Your task to perform on an android device: When is my next appointment? Image 0: 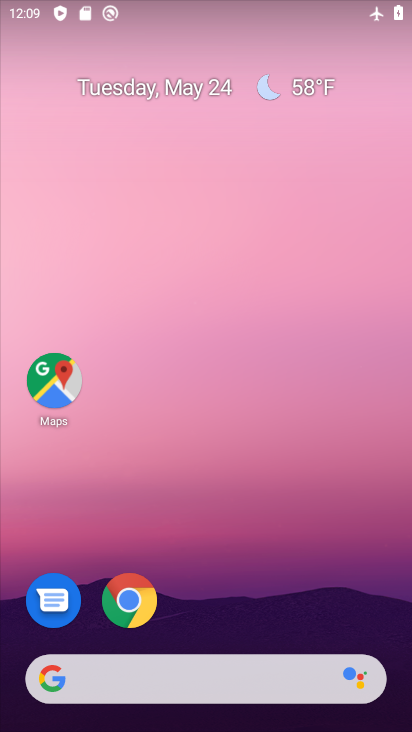
Step 0: drag from (302, 588) to (156, 7)
Your task to perform on an android device: When is my next appointment? Image 1: 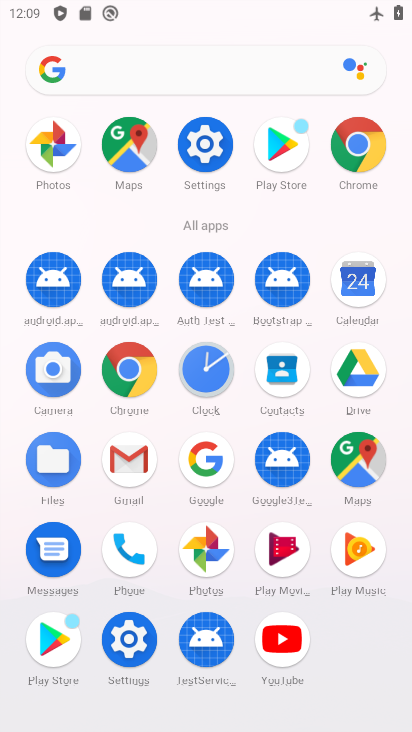
Step 1: click (347, 276)
Your task to perform on an android device: When is my next appointment? Image 2: 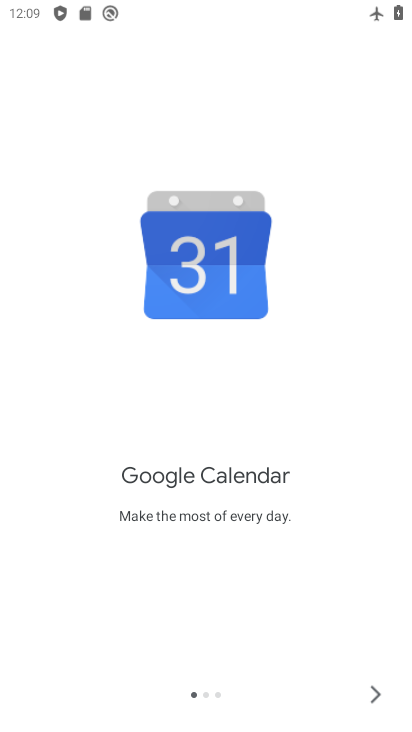
Step 2: click (388, 699)
Your task to perform on an android device: When is my next appointment? Image 3: 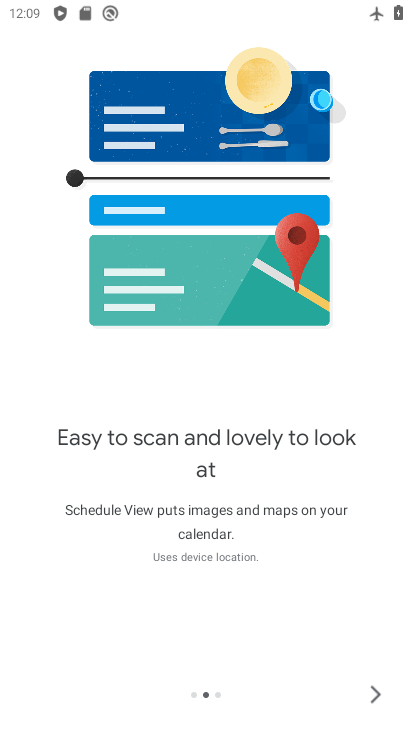
Step 3: click (369, 698)
Your task to perform on an android device: When is my next appointment? Image 4: 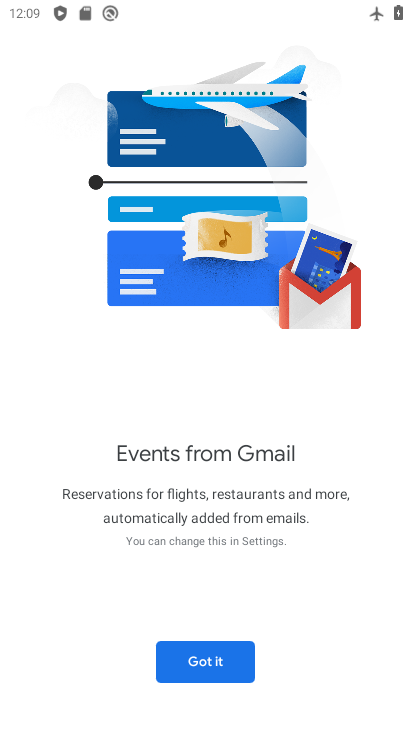
Step 4: click (206, 666)
Your task to perform on an android device: When is my next appointment? Image 5: 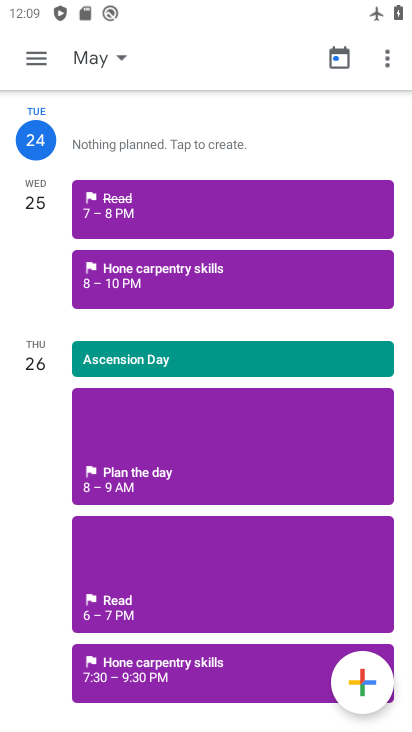
Step 5: task complete